Your task to perform on an android device: Show the shopping cart on newegg. Search for "razer nari" on newegg, select the first entry, add it to the cart, then select checkout. Image 0: 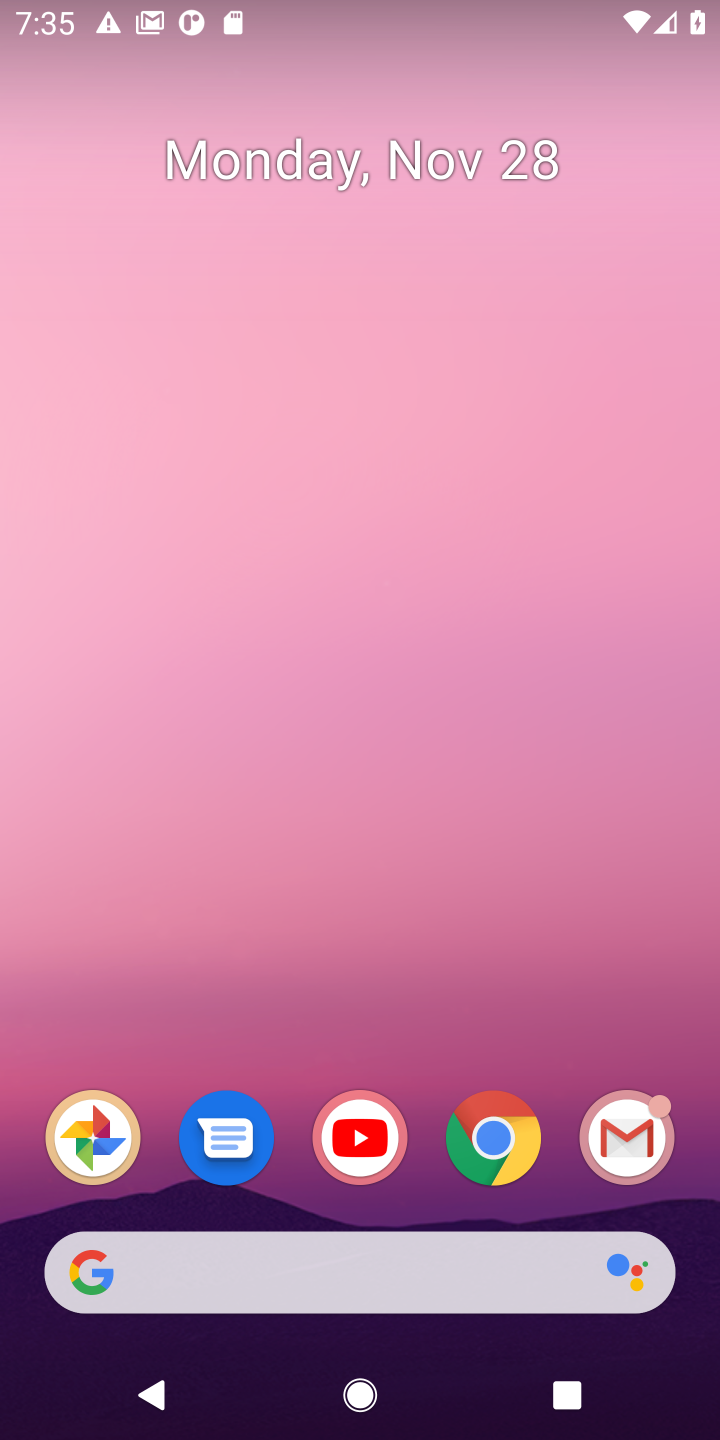
Step 0: click (499, 1146)
Your task to perform on an android device: Show the shopping cart on newegg. Search for "razer nari" on newegg, select the first entry, add it to the cart, then select checkout. Image 1: 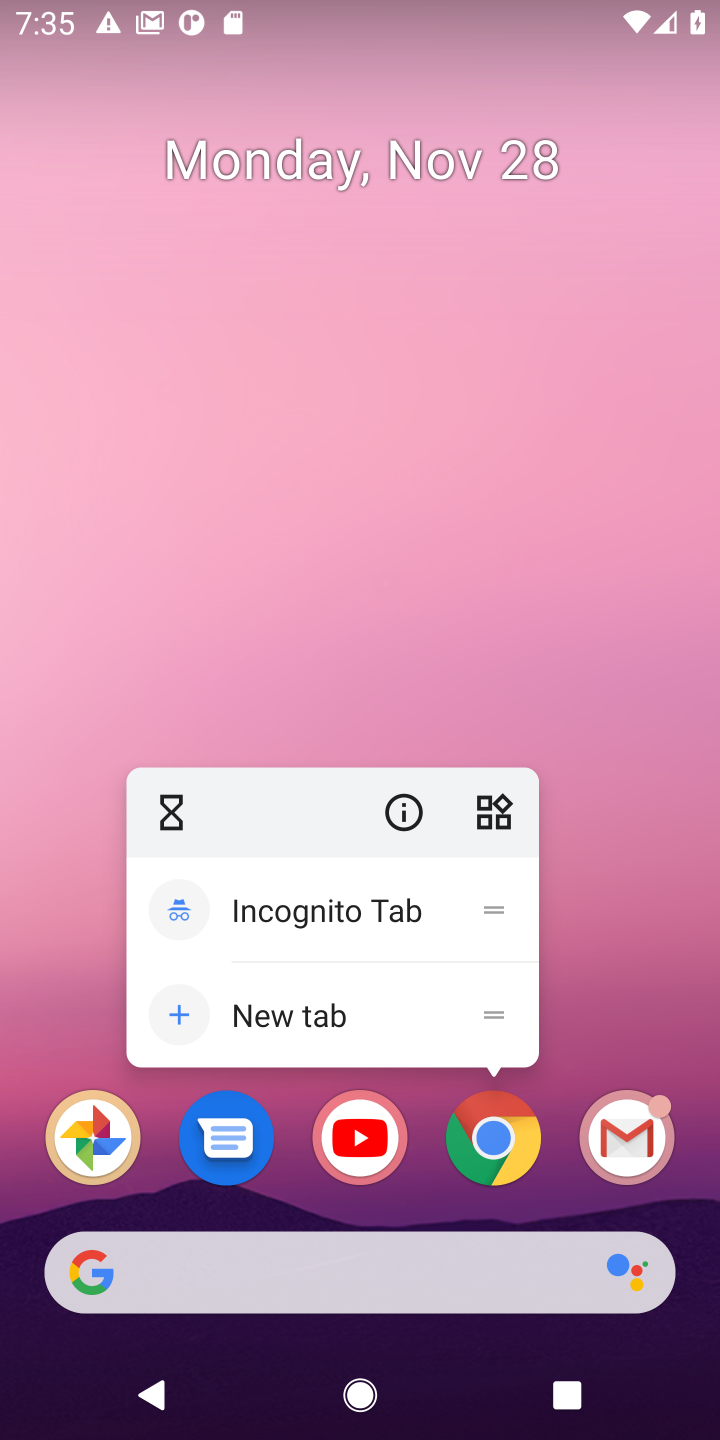
Step 1: click (499, 1146)
Your task to perform on an android device: Show the shopping cart on newegg. Search for "razer nari" on newegg, select the first entry, add it to the cart, then select checkout. Image 2: 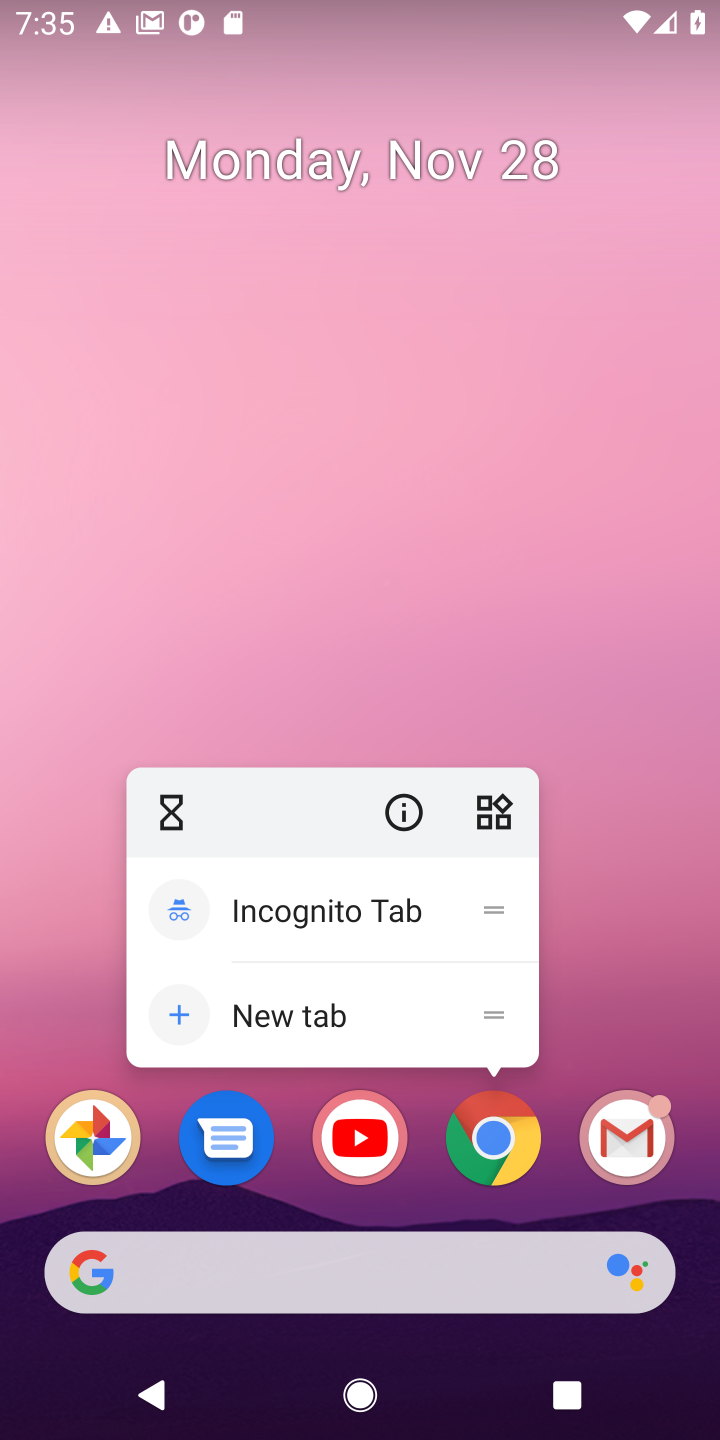
Step 2: click (499, 1146)
Your task to perform on an android device: Show the shopping cart on newegg. Search for "razer nari" on newegg, select the first entry, add it to the cart, then select checkout. Image 3: 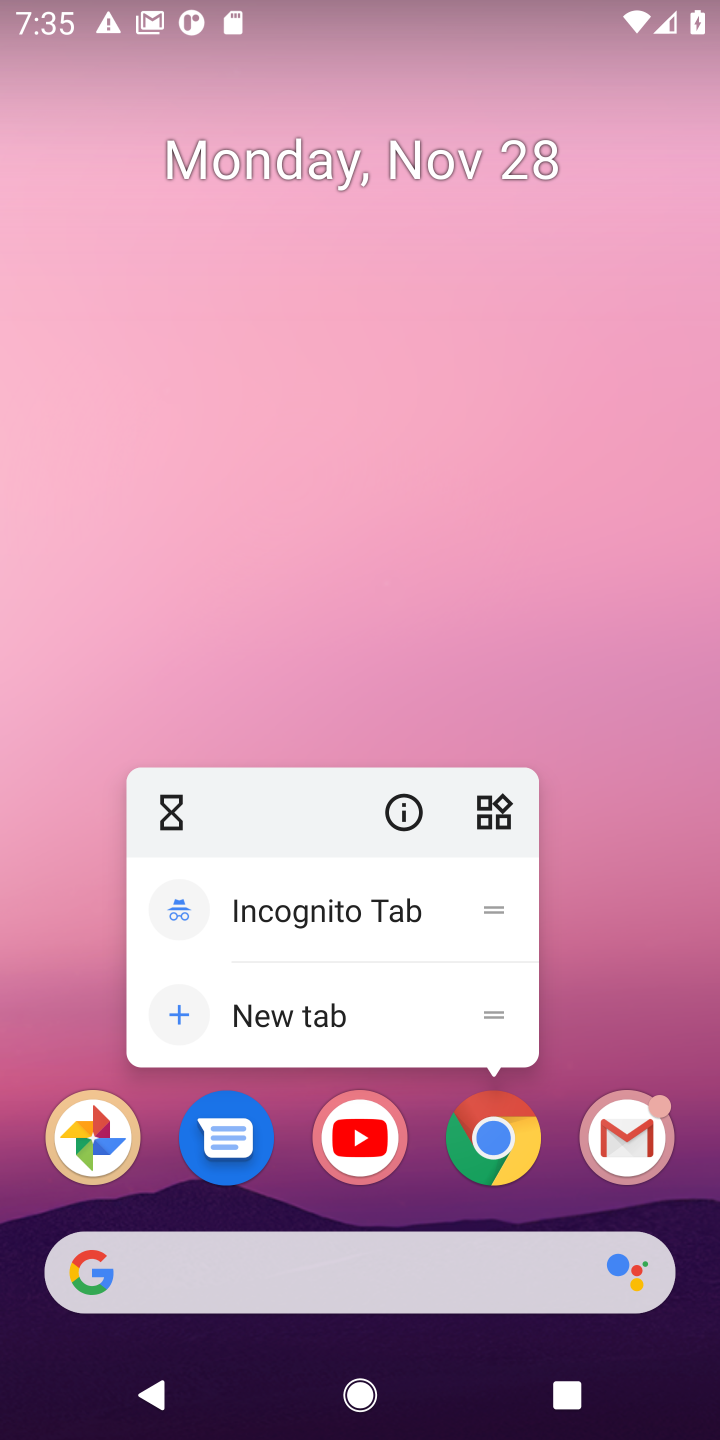
Step 3: click (631, 955)
Your task to perform on an android device: Show the shopping cart on newegg. Search for "razer nari" on newegg, select the first entry, add it to the cart, then select checkout. Image 4: 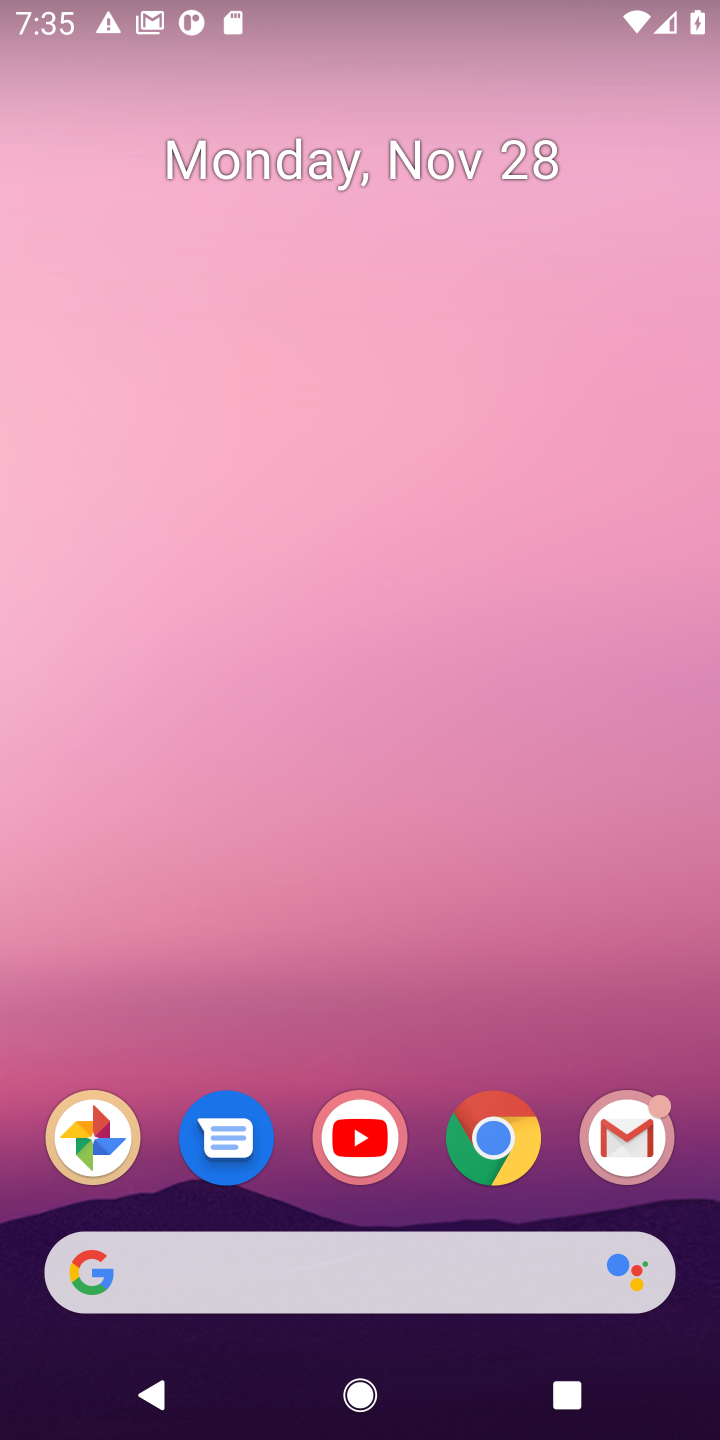
Step 4: click (489, 1141)
Your task to perform on an android device: Show the shopping cart on newegg. Search for "razer nari" on newegg, select the first entry, add it to the cart, then select checkout. Image 5: 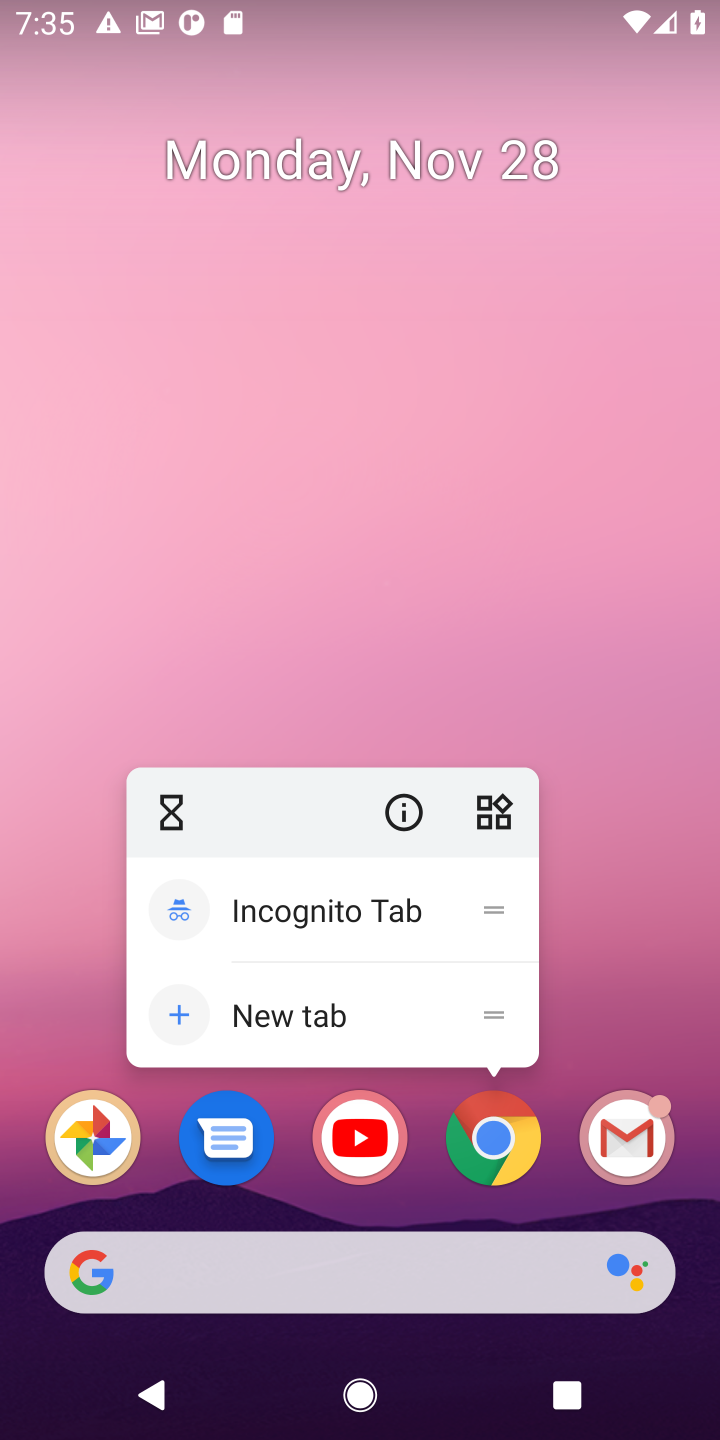
Step 5: click (489, 1141)
Your task to perform on an android device: Show the shopping cart on newegg. Search for "razer nari" on newegg, select the first entry, add it to the cart, then select checkout. Image 6: 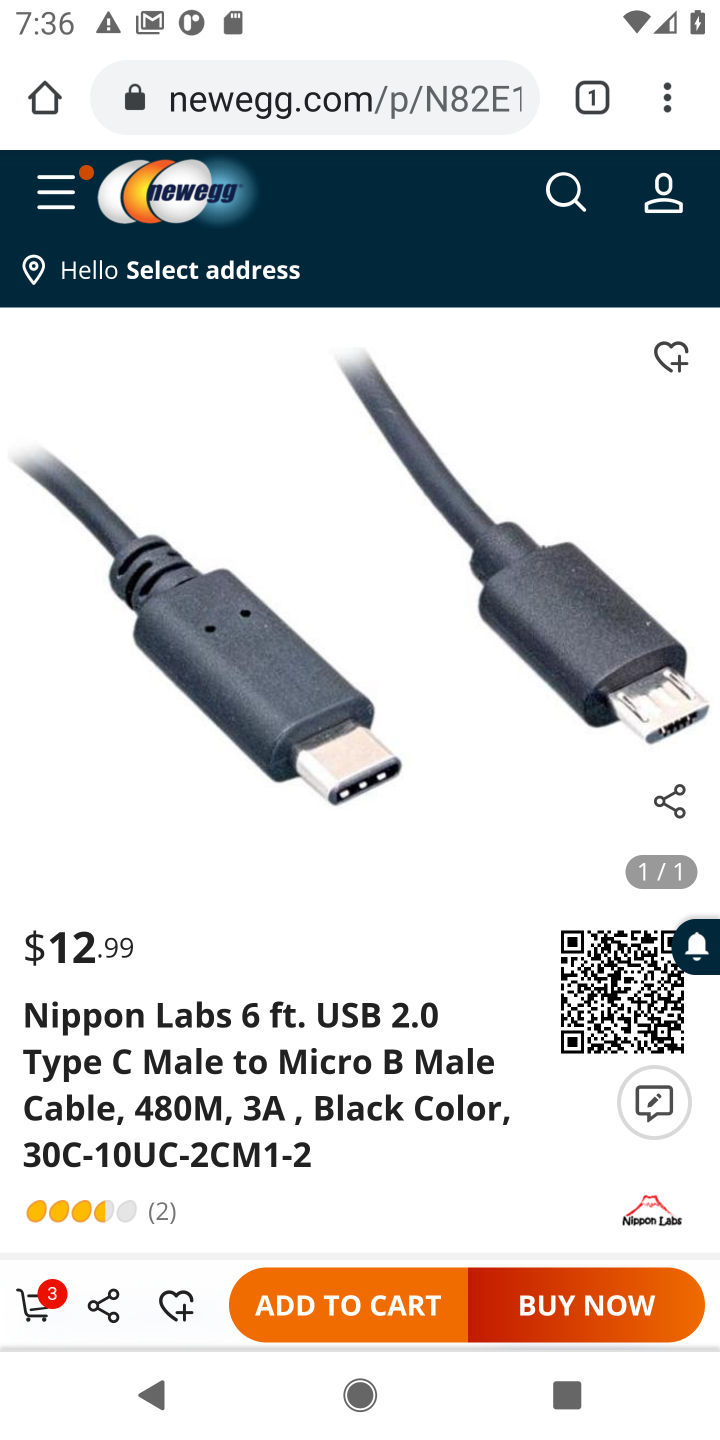
Step 6: click (36, 1307)
Your task to perform on an android device: Show the shopping cart on newegg. Search for "razer nari" on newegg, select the first entry, add it to the cart, then select checkout. Image 7: 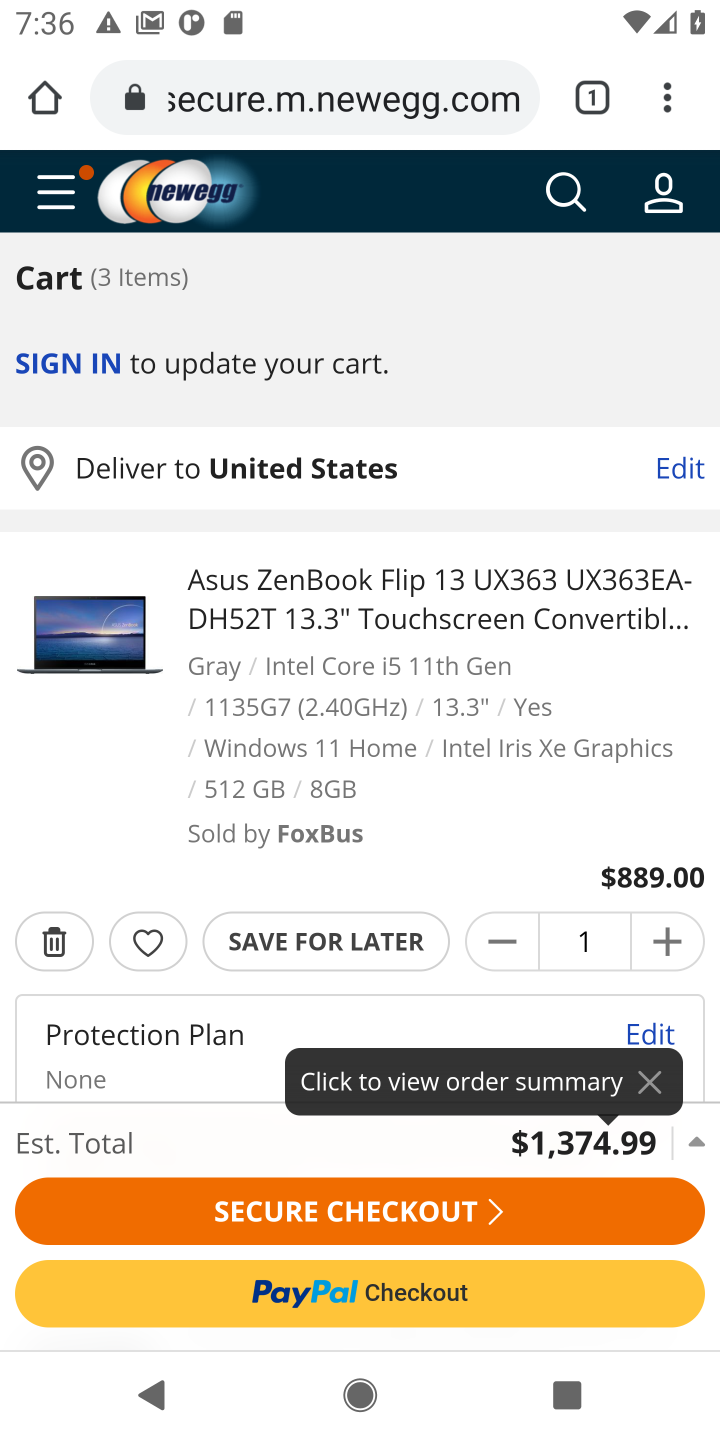
Step 7: click (567, 209)
Your task to perform on an android device: Show the shopping cart on newegg. Search for "razer nari" on newegg, select the first entry, add it to the cart, then select checkout. Image 8: 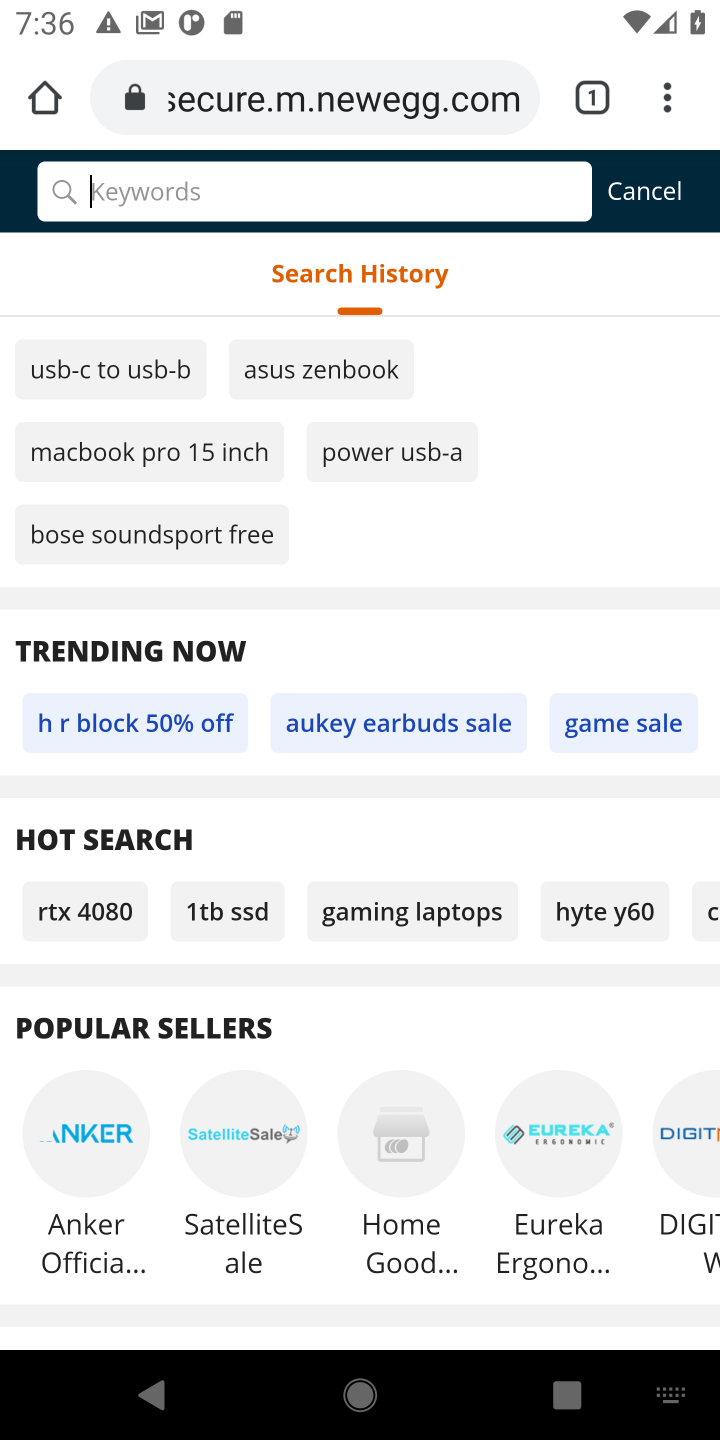
Step 8: type "razer nari"
Your task to perform on an android device: Show the shopping cart on newegg. Search for "razer nari" on newegg, select the first entry, add it to the cart, then select checkout. Image 9: 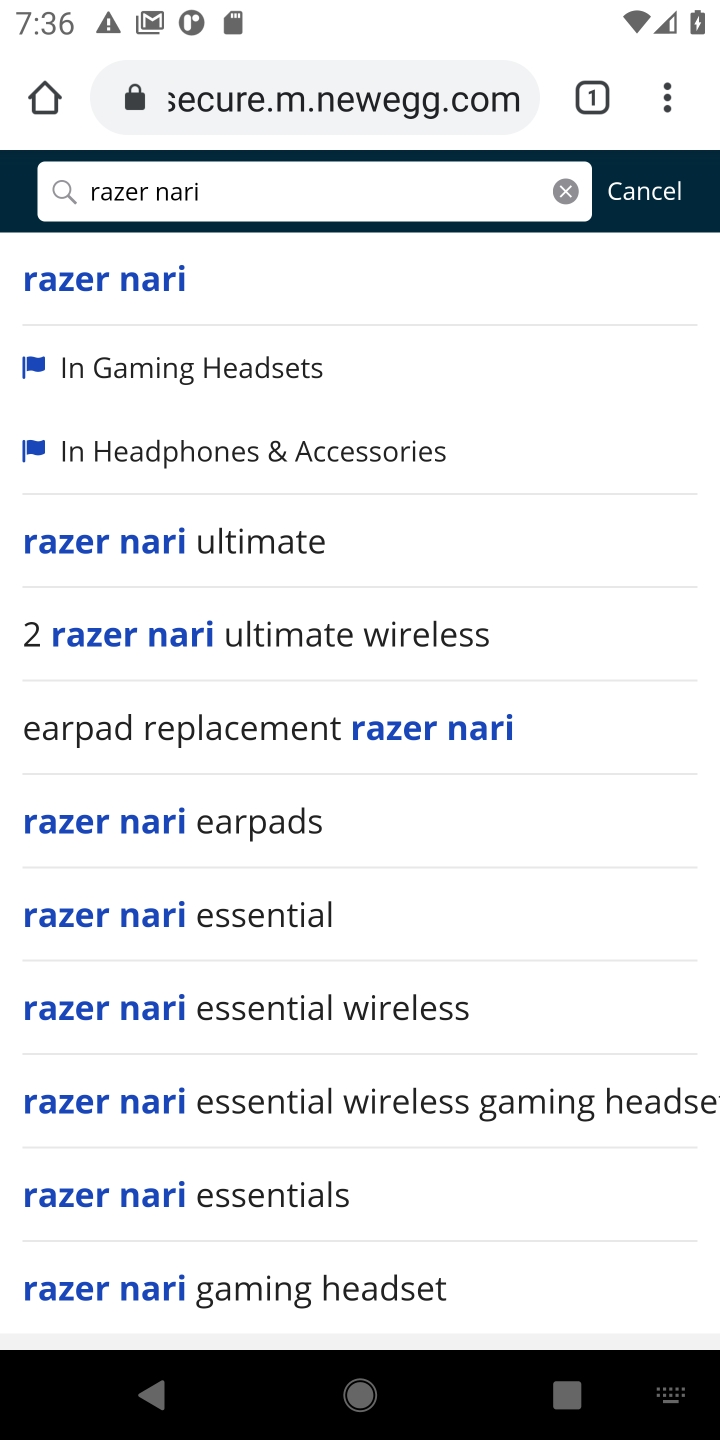
Step 9: click (70, 294)
Your task to perform on an android device: Show the shopping cart on newegg. Search for "razer nari" on newegg, select the first entry, add it to the cart, then select checkout. Image 10: 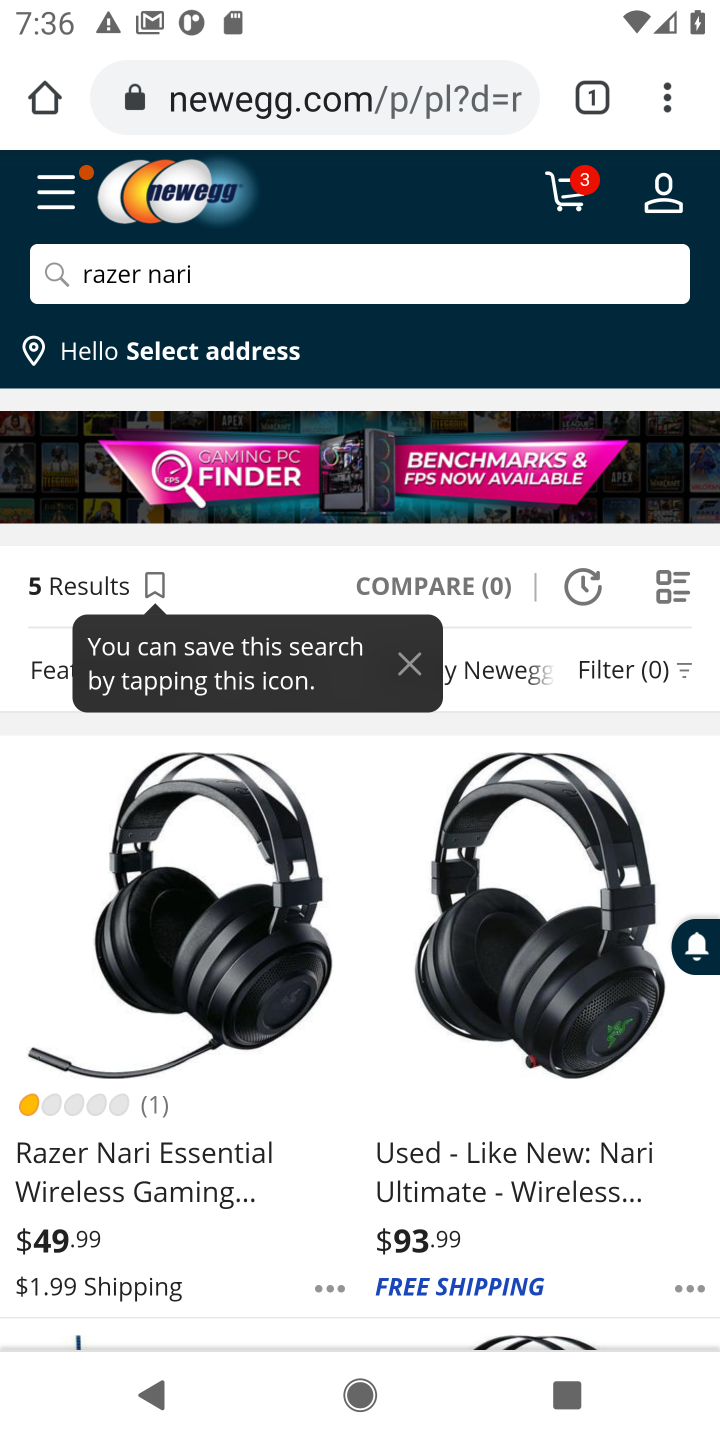
Step 10: click (188, 961)
Your task to perform on an android device: Show the shopping cart on newegg. Search for "razer nari" on newegg, select the first entry, add it to the cart, then select checkout. Image 11: 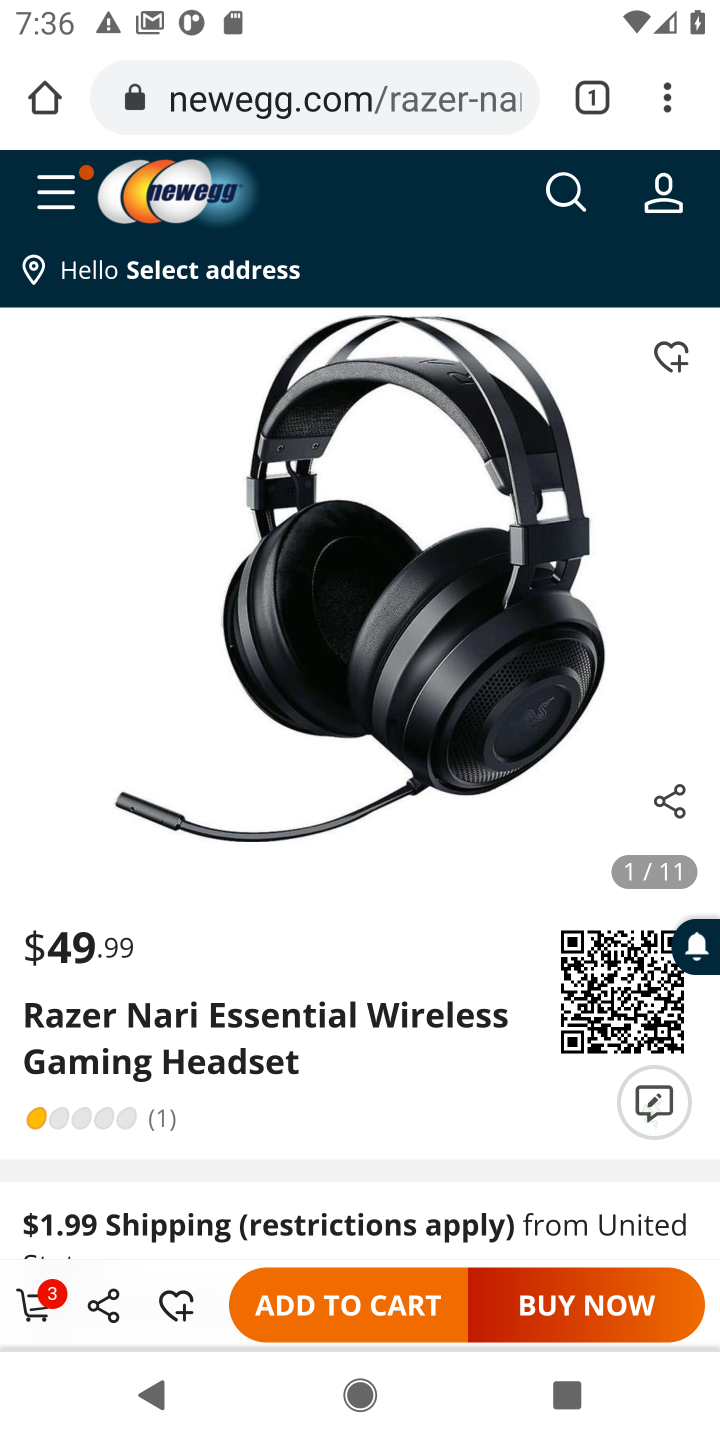
Step 11: click (317, 1303)
Your task to perform on an android device: Show the shopping cart on newegg. Search for "razer nari" on newegg, select the first entry, add it to the cart, then select checkout. Image 12: 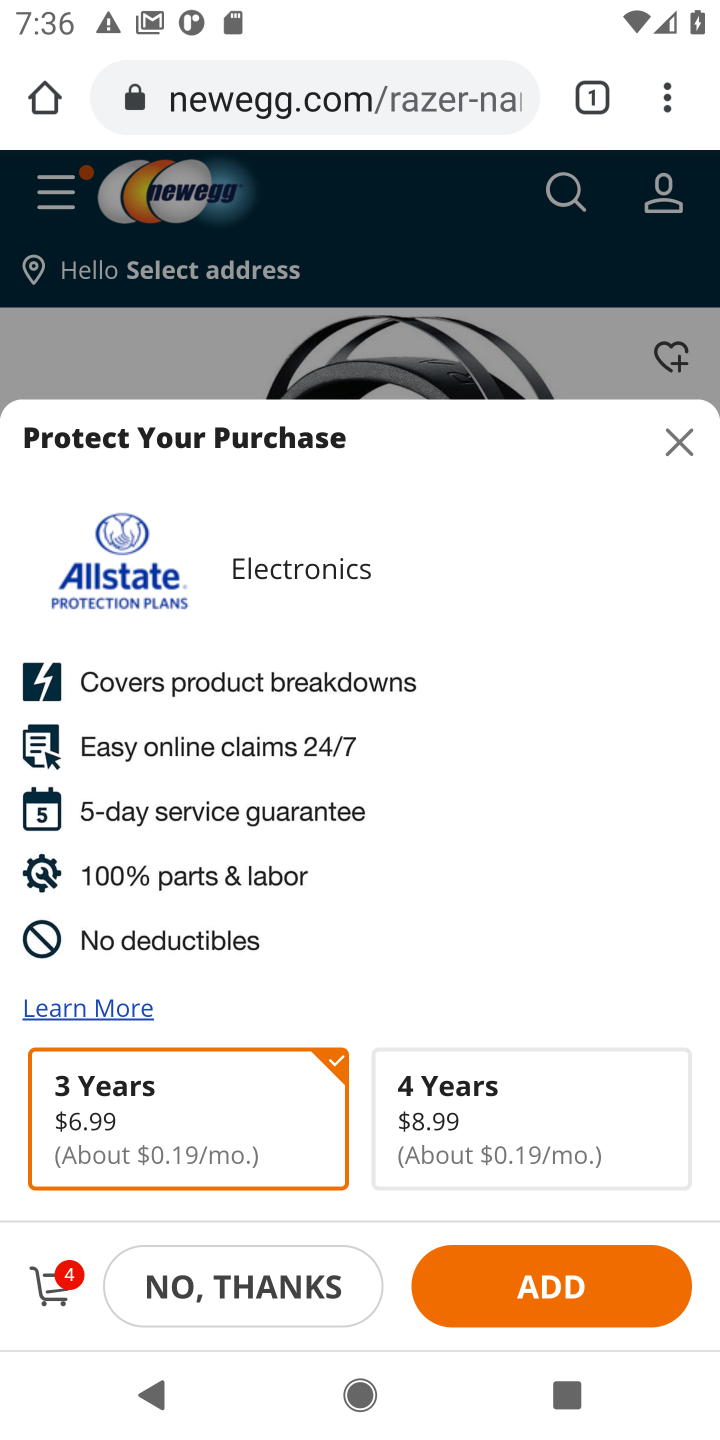
Step 12: click (57, 1297)
Your task to perform on an android device: Show the shopping cart on newegg. Search for "razer nari" on newegg, select the first entry, add it to the cart, then select checkout. Image 13: 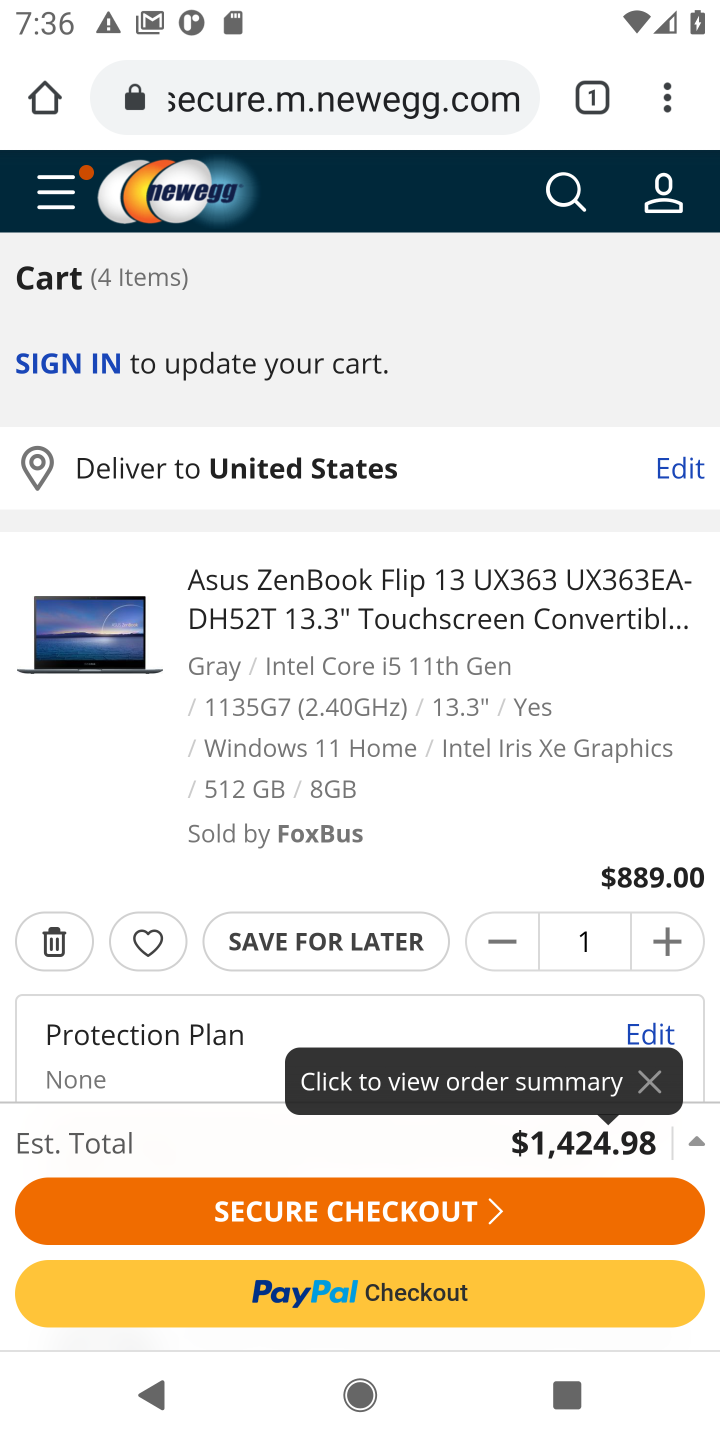
Step 13: click (319, 1213)
Your task to perform on an android device: Show the shopping cart on newegg. Search for "razer nari" on newegg, select the first entry, add it to the cart, then select checkout. Image 14: 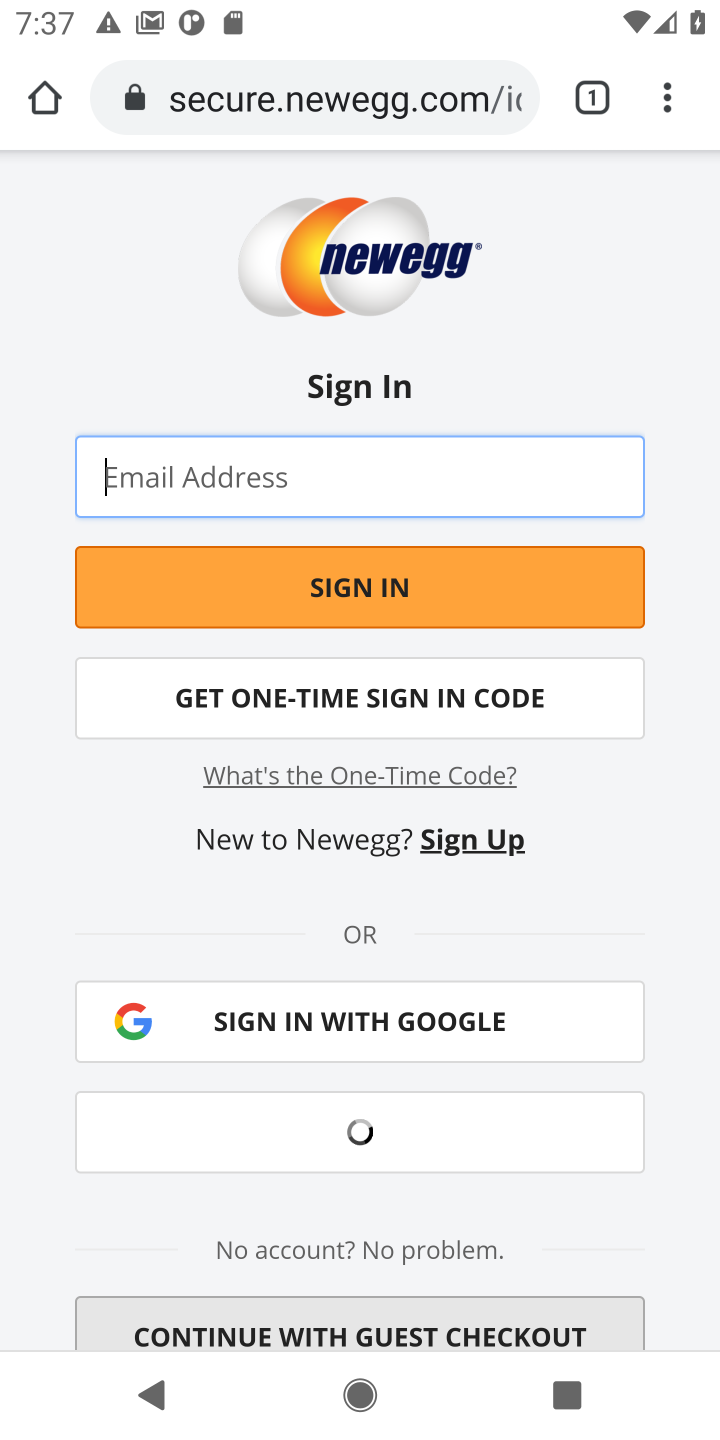
Step 14: task complete